Your task to perform on an android device: open app "Nova Launcher" (install if not already installed) and go to login screen Image 0: 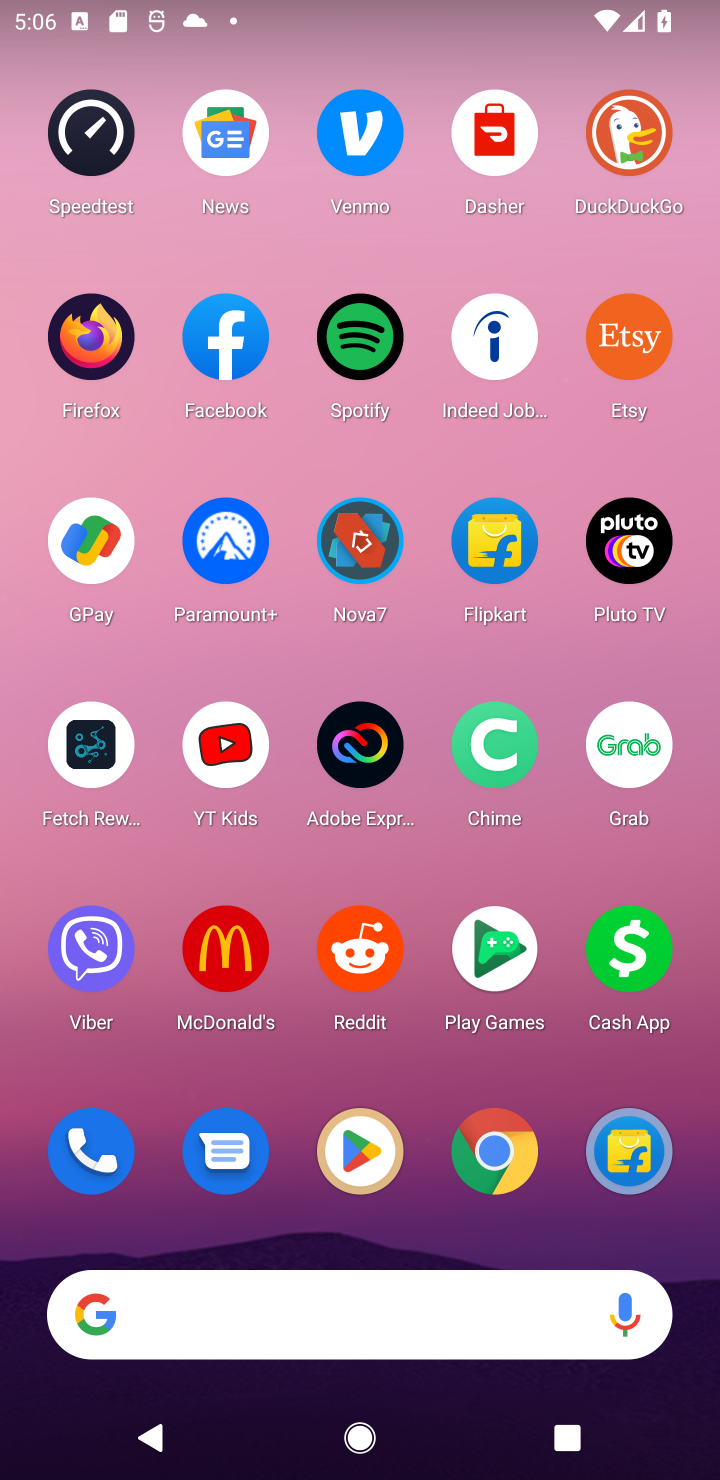
Step 0: press home button
Your task to perform on an android device: open app "Nova Launcher" (install if not already installed) and go to login screen Image 1: 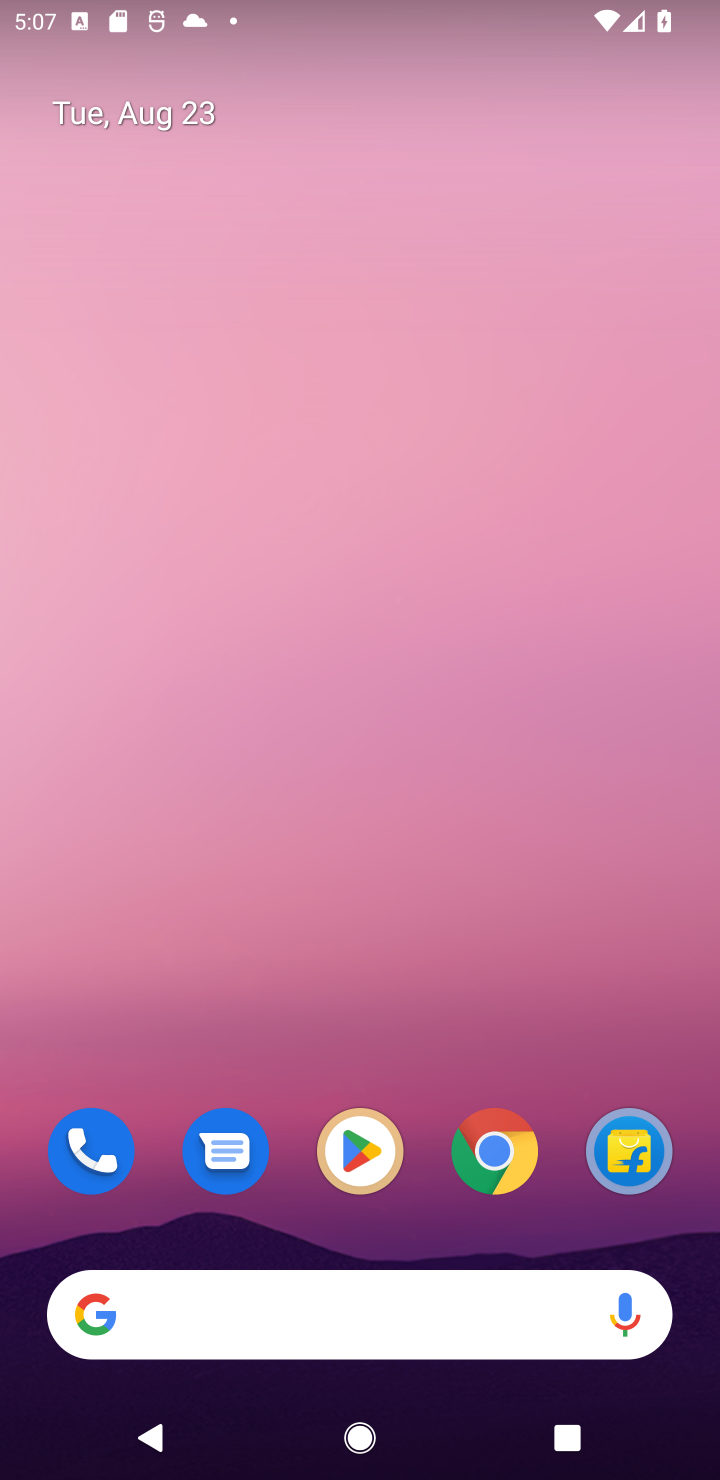
Step 1: click (346, 1147)
Your task to perform on an android device: open app "Nova Launcher" (install if not already installed) and go to login screen Image 2: 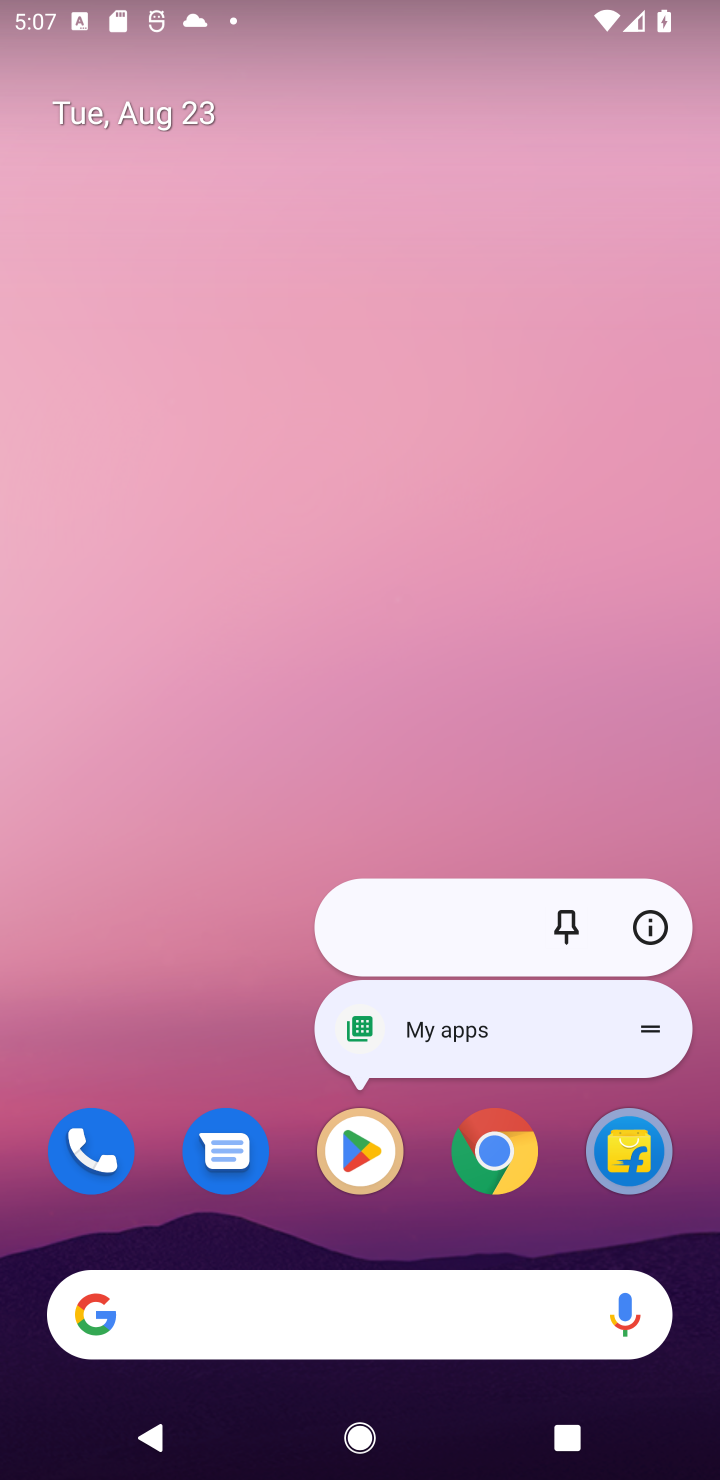
Step 2: click (357, 1152)
Your task to perform on an android device: open app "Nova Launcher" (install if not already installed) and go to login screen Image 3: 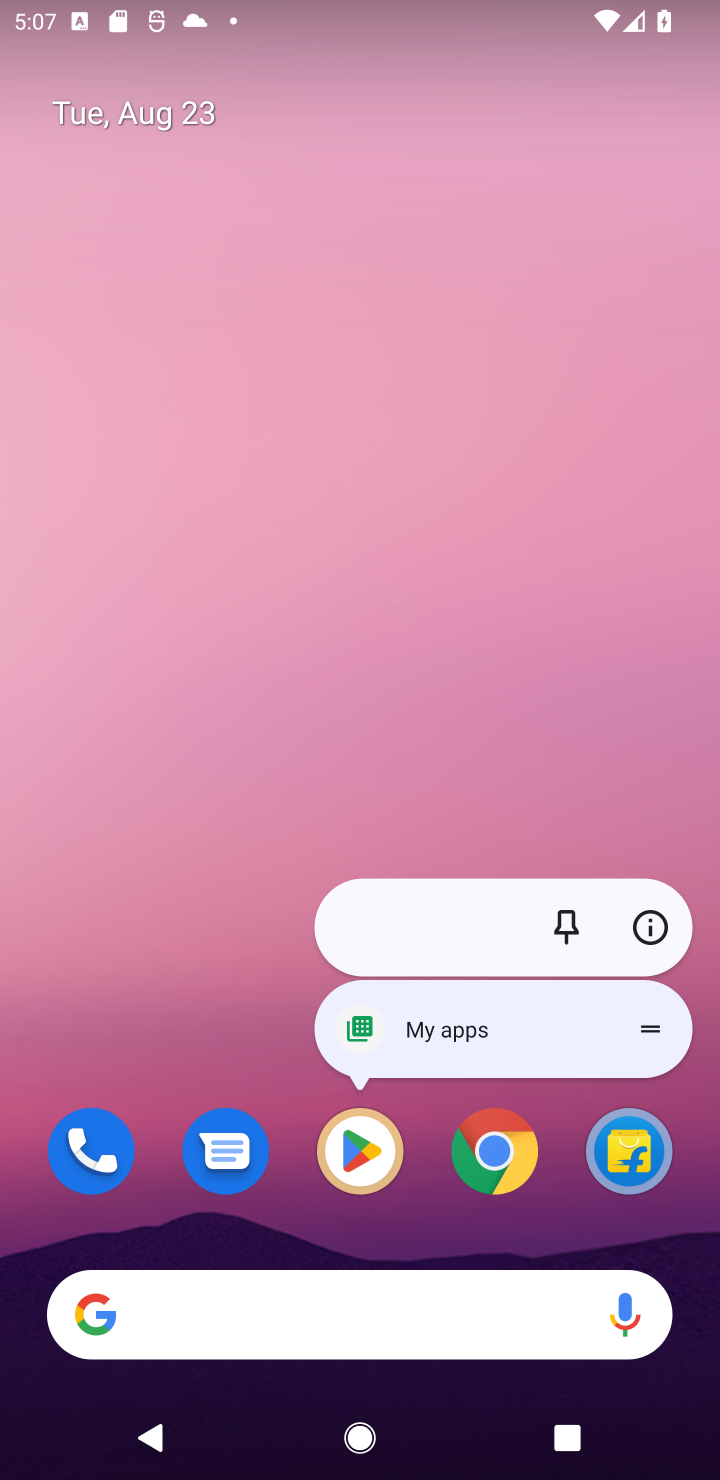
Step 3: click (359, 1165)
Your task to perform on an android device: open app "Nova Launcher" (install if not already installed) and go to login screen Image 4: 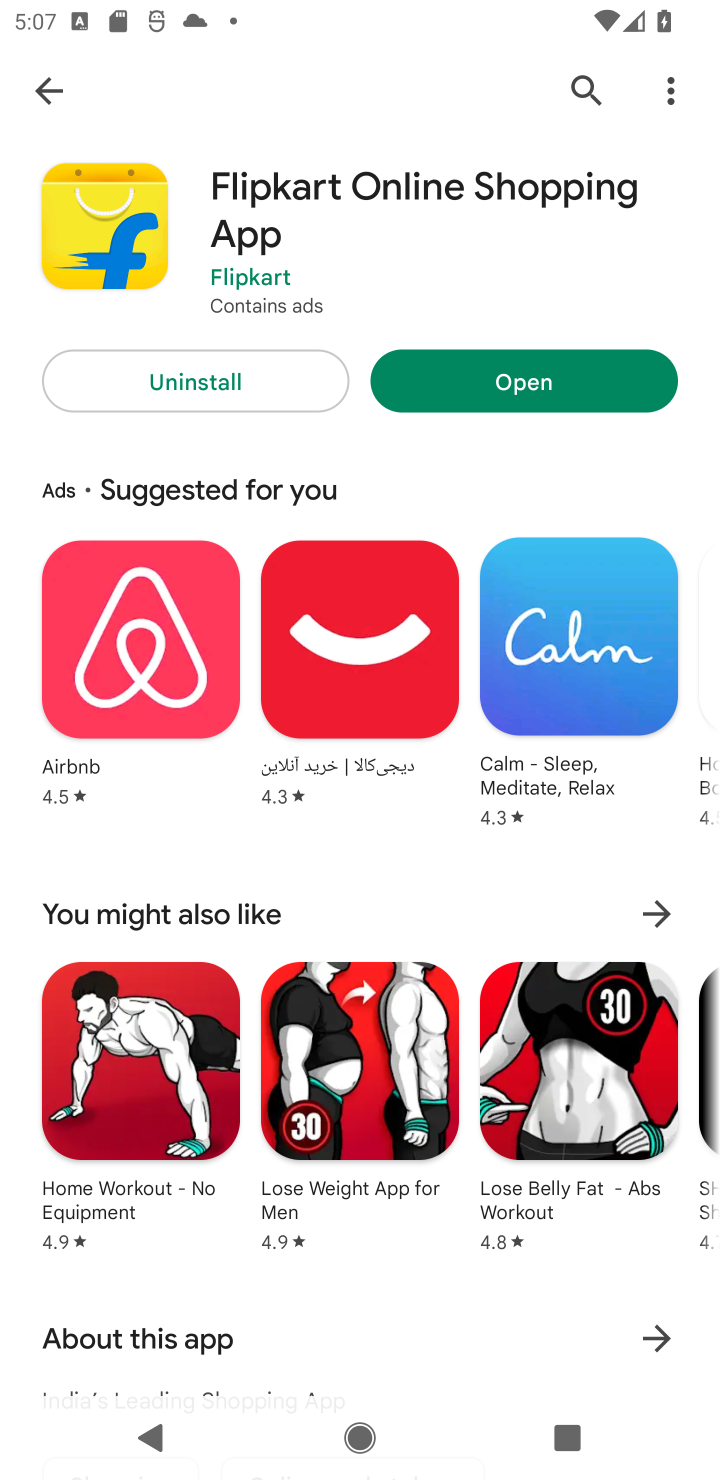
Step 4: click (580, 64)
Your task to perform on an android device: open app "Nova Launcher" (install if not already installed) and go to login screen Image 5: 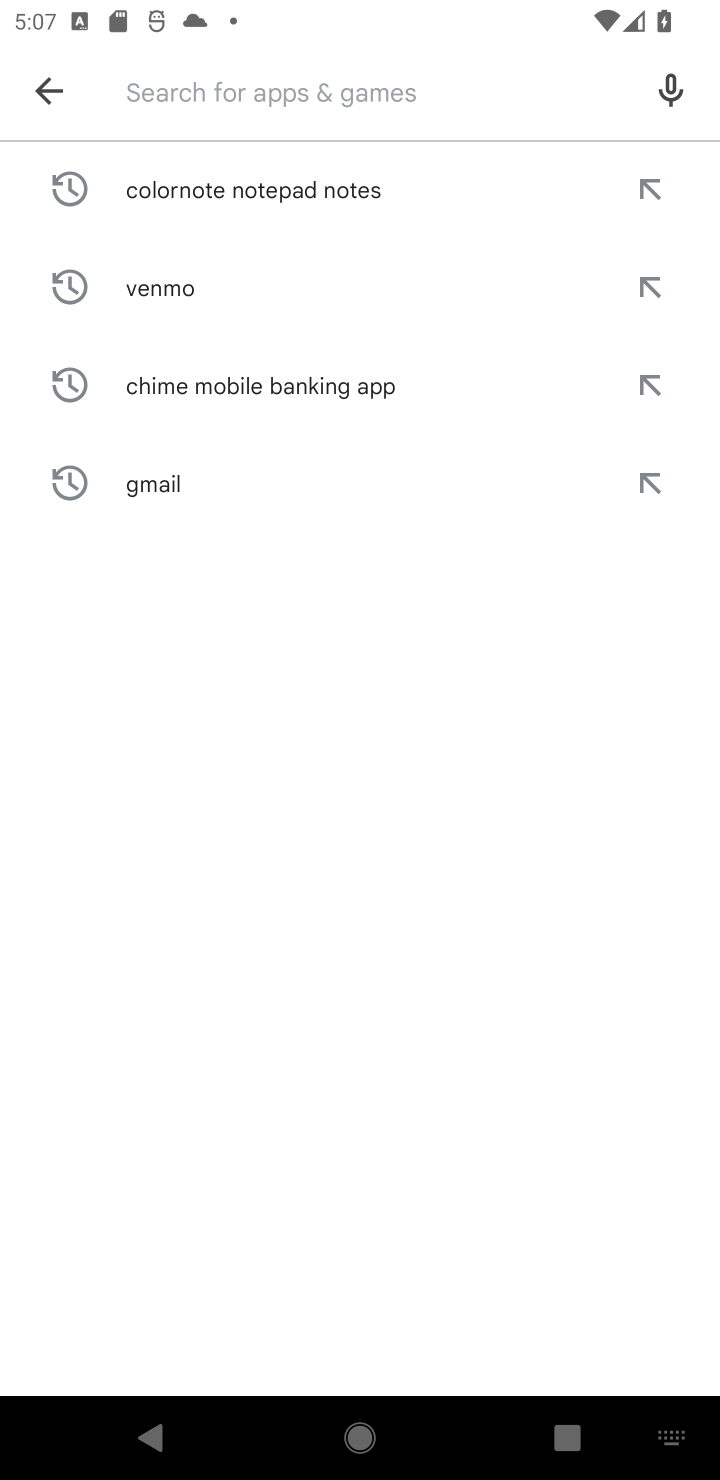
Step 5: type "Nova Launcher"
Your task to perform on an android device: open app "Nova Launcher" (install if not already installed) and go to login screen Image 6: 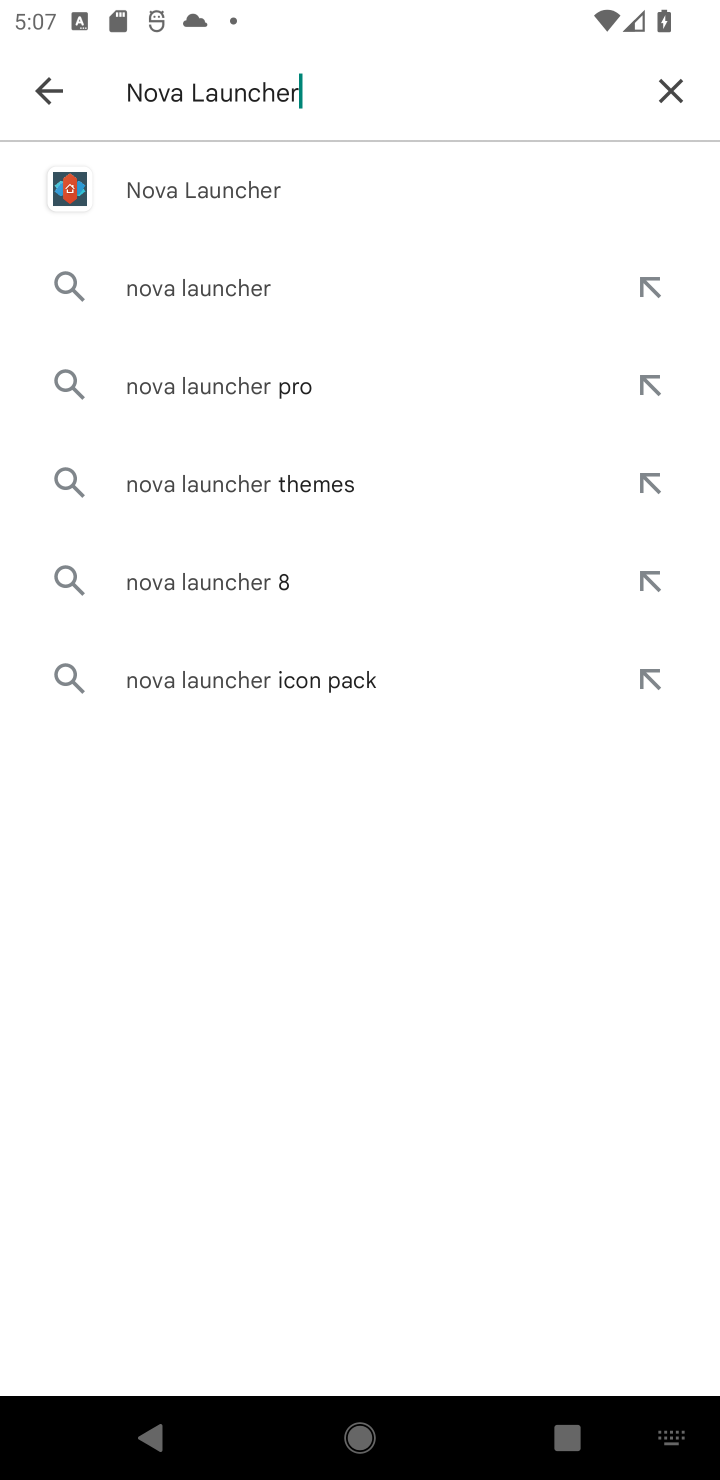
Step 6: click (279, 180)
Your task to perform on an android device: open app "Nova Launcher" (install if not already installed) and go to login screen Image 7: 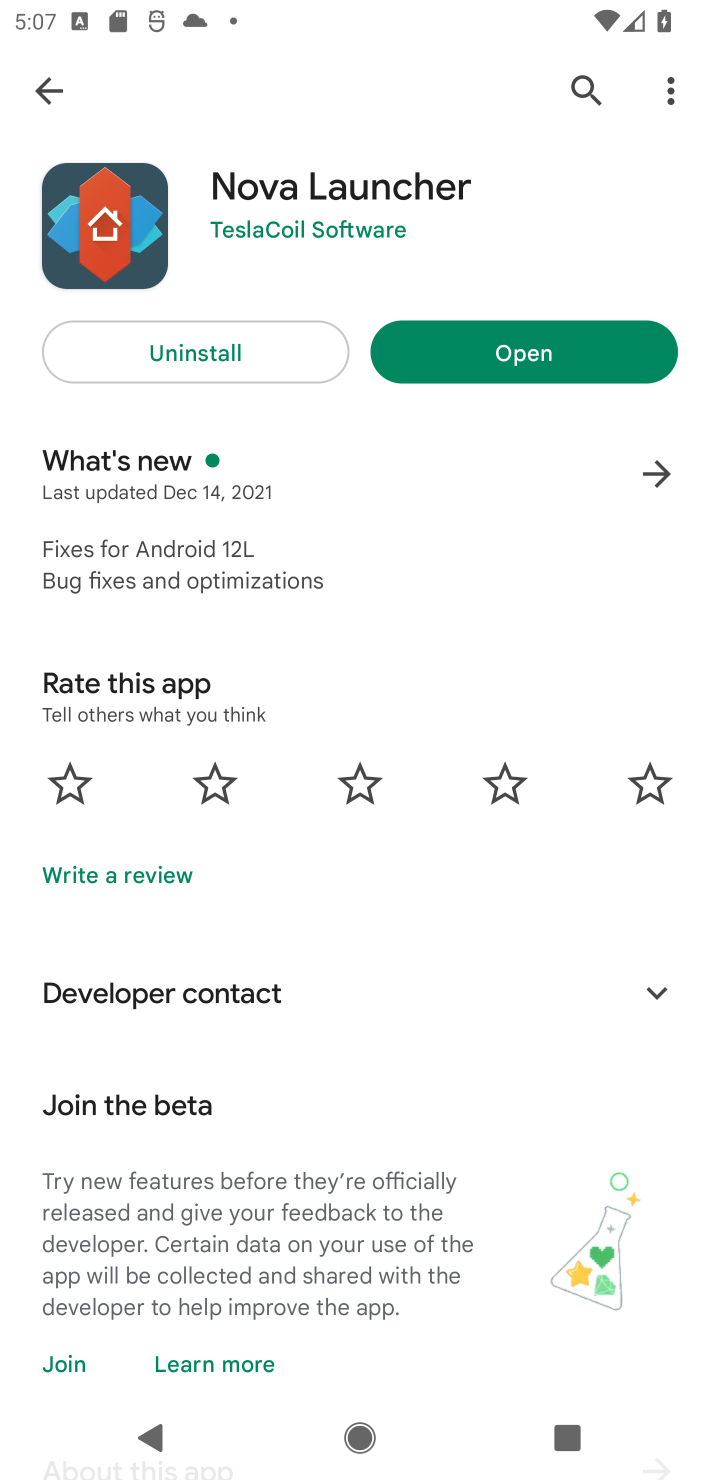
Step 7: click (556, 363)
Your task to perform on an android device: open app "Nova Launcher" (install if not already installed) and go to login screen Image 8: 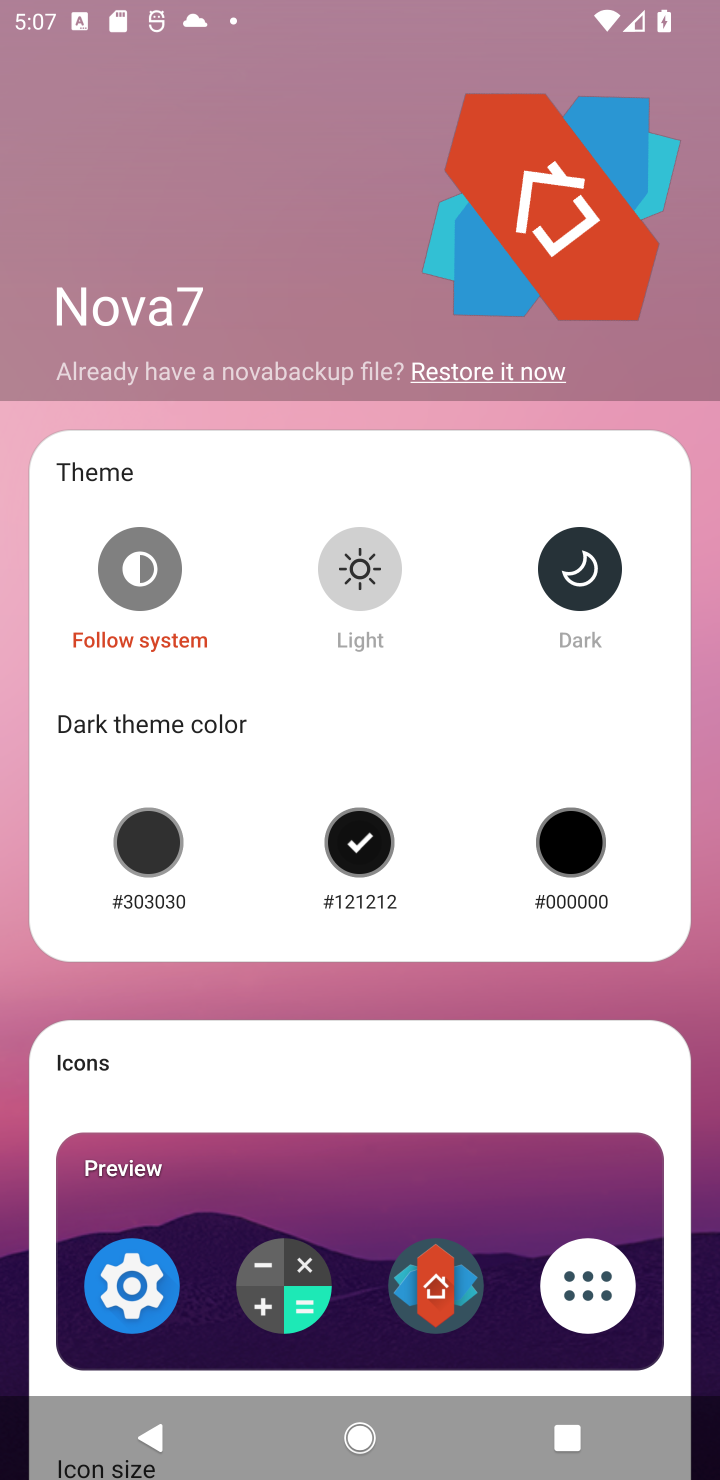
Step 8: task complete